Your task to perform on an android device: Open the map Image 0: 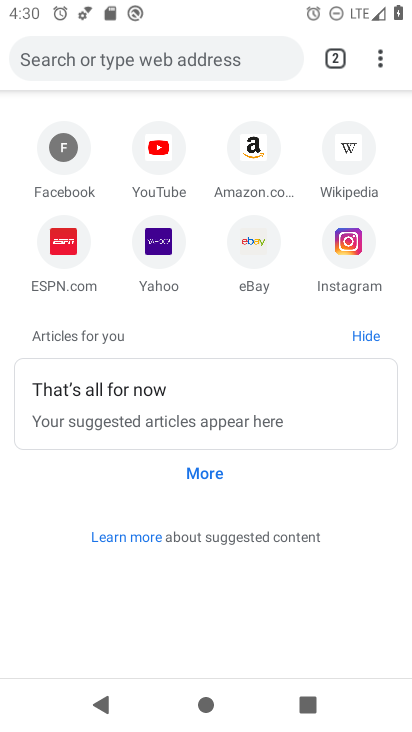
Step 0: press home button
Your task to perform on an android device: Open the map Image 1: 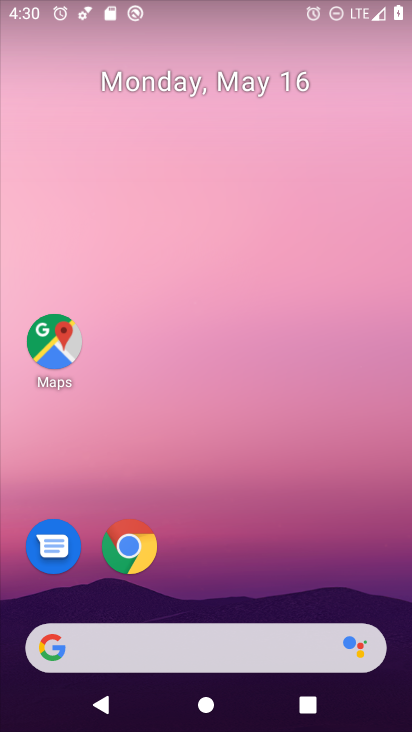
Step 1: drag from (357, 582) to (330, 109)
Your task to perform on an android device: Open the map Image 2: 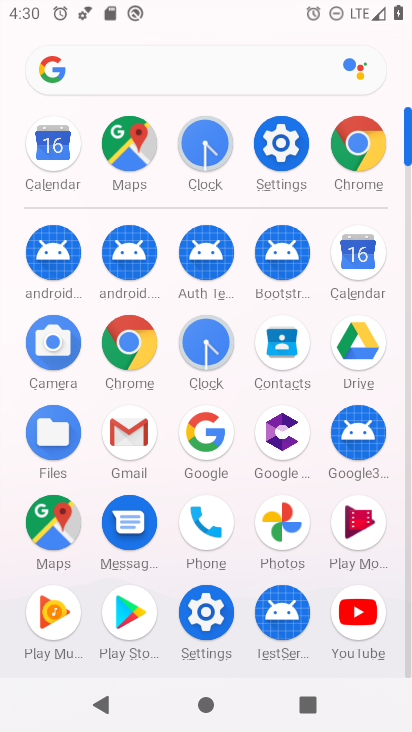
Step 2: click (62, 511)
Your task to perform on an android device: Open the map Image 3: 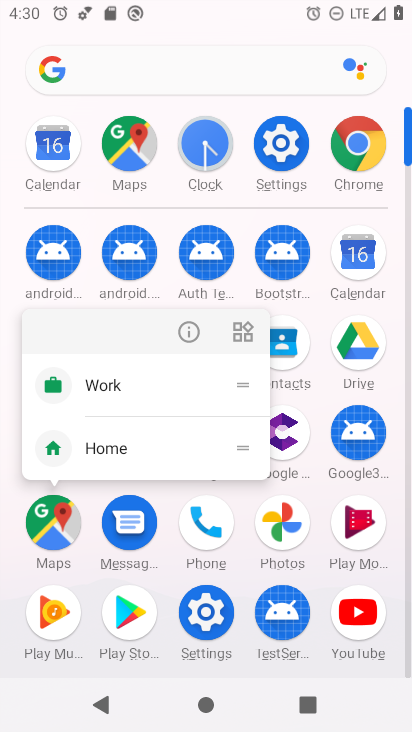
Step 3: click (62, 511)
Your task to perform on an android device: Open the map Image 4: 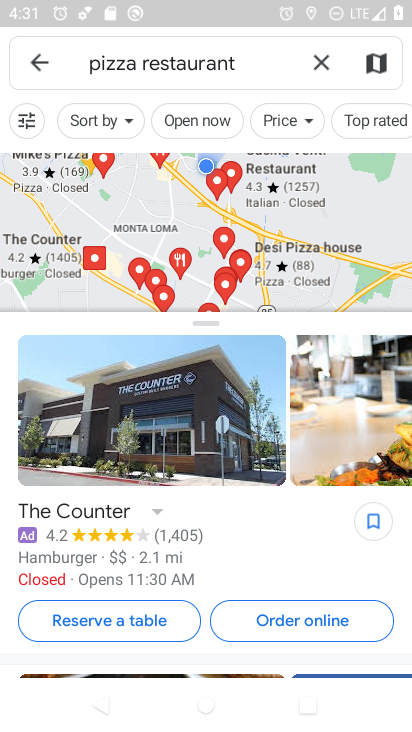
Step 4: task complete